Your task to perform on an android device: Go to calendar. Show me events next week Image 0: 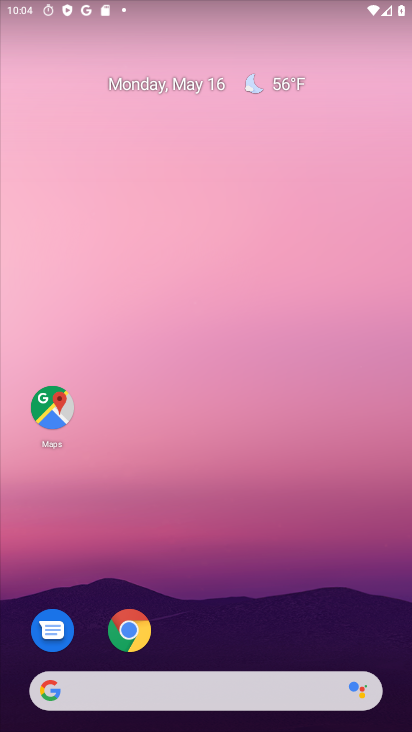
Step 0: drag from (203, 515) to (332, 41)
Your task to perform on an android device: Go to calendar. Show me events next week Image 1: 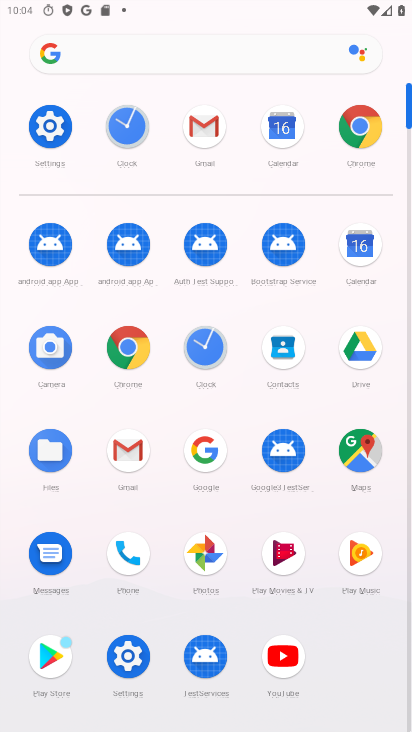
Step 1: click (377, 244)
Your task to perform on an android device: Go to calendar. Show me events next week Image 2: 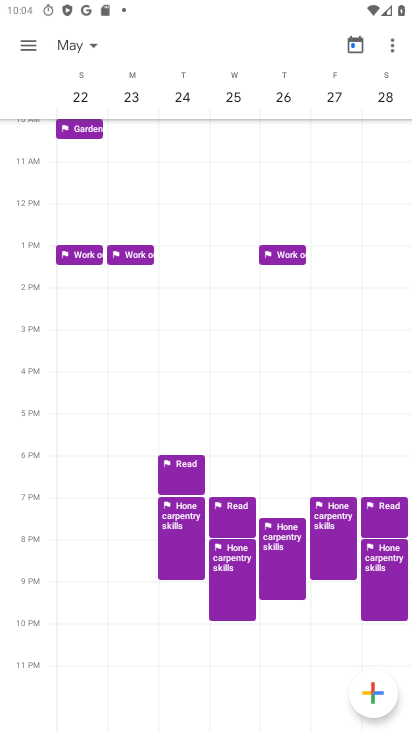
Step 2: task complete